Your task to perform on an android device: turn on translation in the chrome app Image 0: 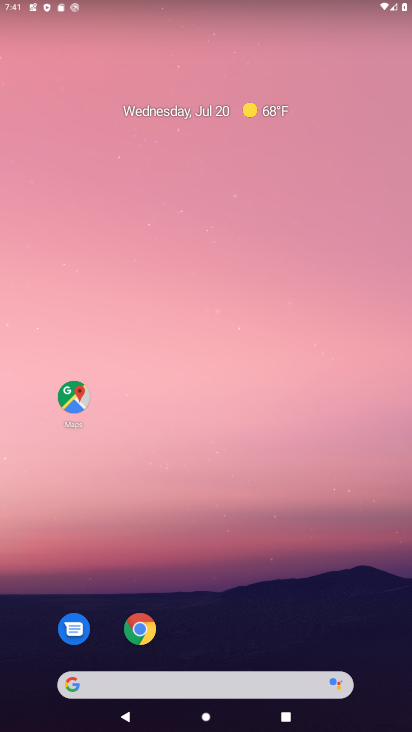
Step 0: drag from (345, 623) to (378, 107)
Your task to perform on an android device: turn on translation in the chrome app Image 1: 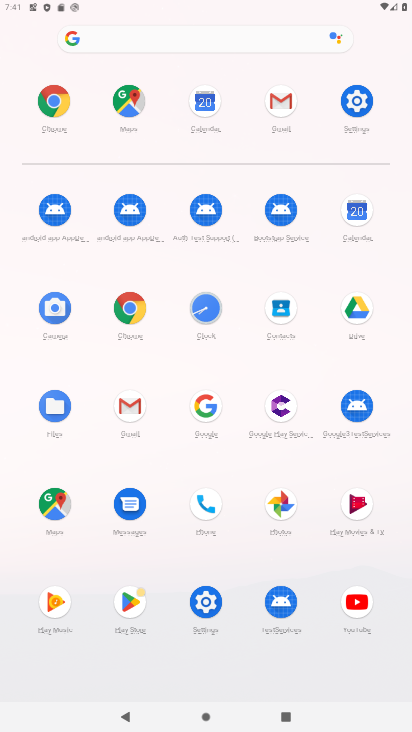
Step 1: click (131, 313)
Your task to perform on an android device: turn on translation in the chrome app Image 2: 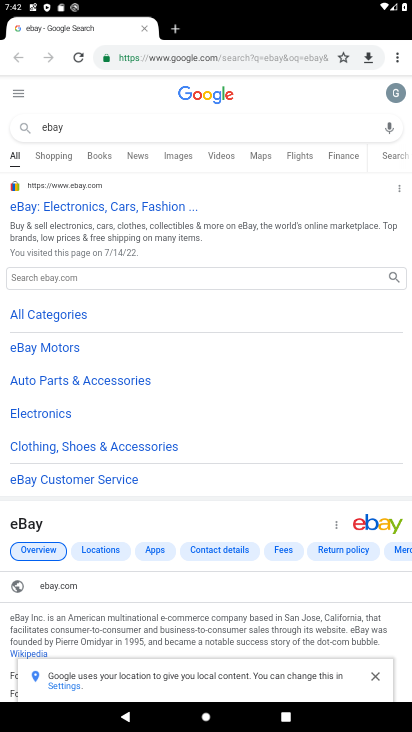
Step 2: click (397, 56)
Your task to perform on an android device: turn on translation in the chrome app Image 3: 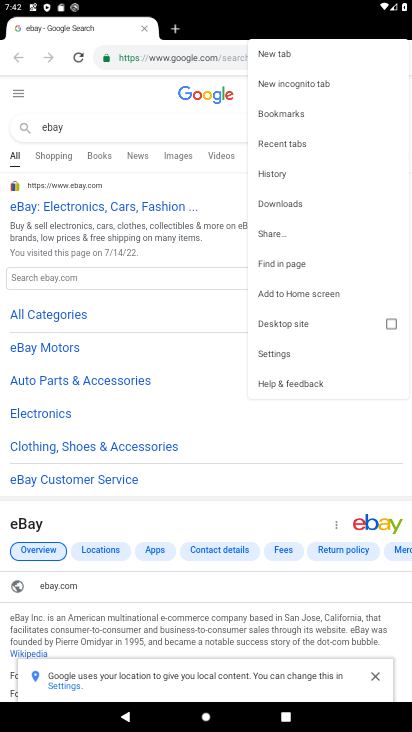
Step 3: click (281, 360)
Your task to perform on an android device: turn on translation in the chrome app Image 4: 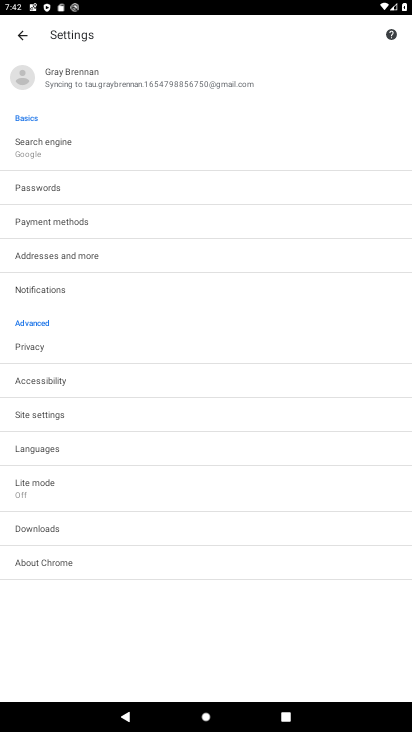
Step 4: click (259, 448)
Your task to perform on an android device: turn on translation in the chrome app Image 5: 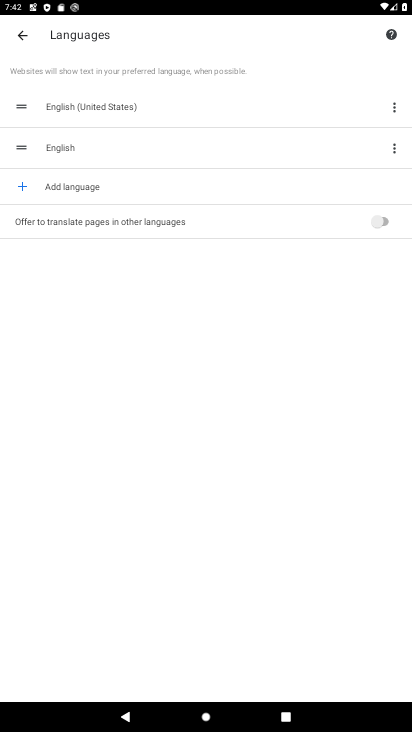
Step 5: click (387, 226)
Your task to perform on an android device: turn on translation in the chrome app Image 6: 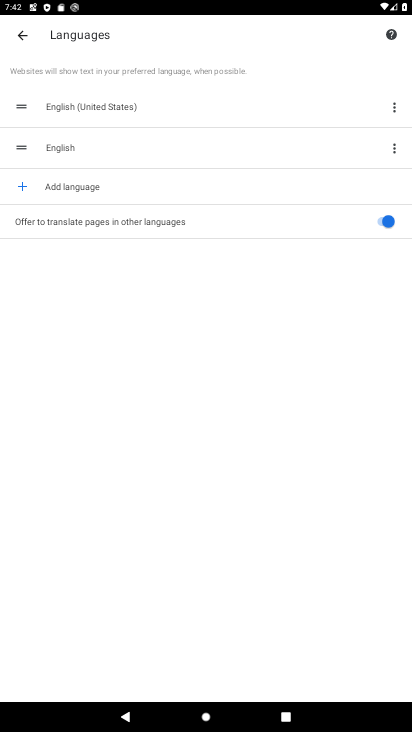
Step 6: task complete